Your task to perform on an android device: Do I have any events this weekend? Image 0: 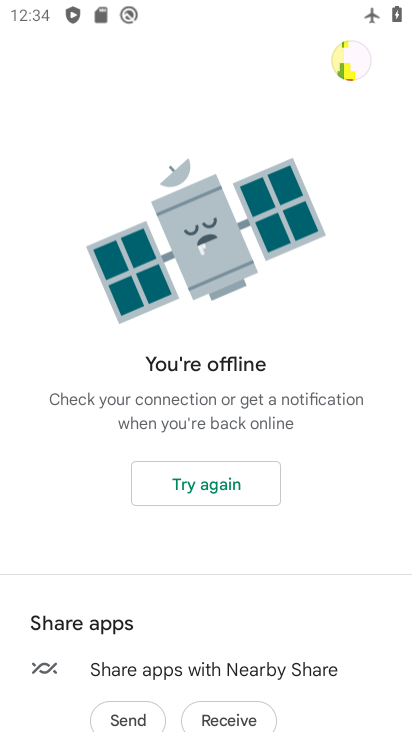
Step 0: press home button
Your task to perform on an android device: Do I have any events this weekend? Image 1: 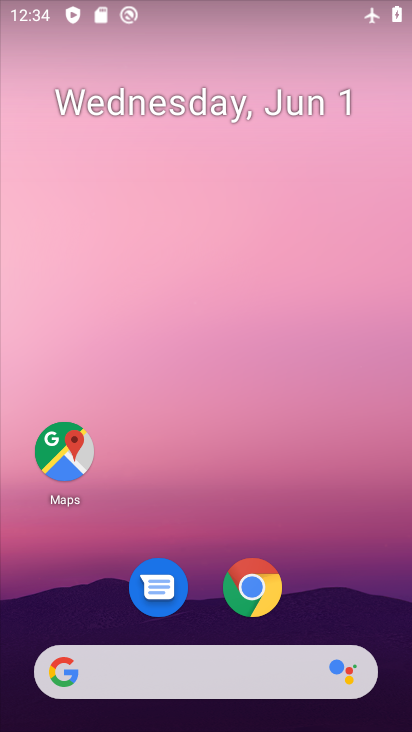
Step 1: drag from (303, 518) to (211, 144)
Your task to perform on an android device: Do I have any events this weekend? Image 2: 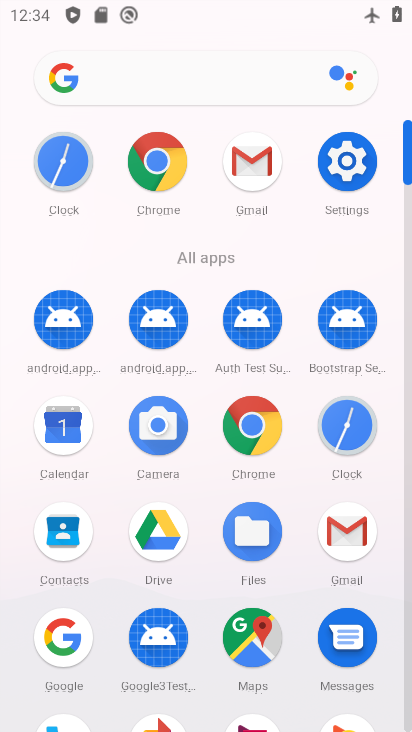
Step 2: click (63, 423)
Your task to perform on an android device: Do I have any events this weekend? Image 3: 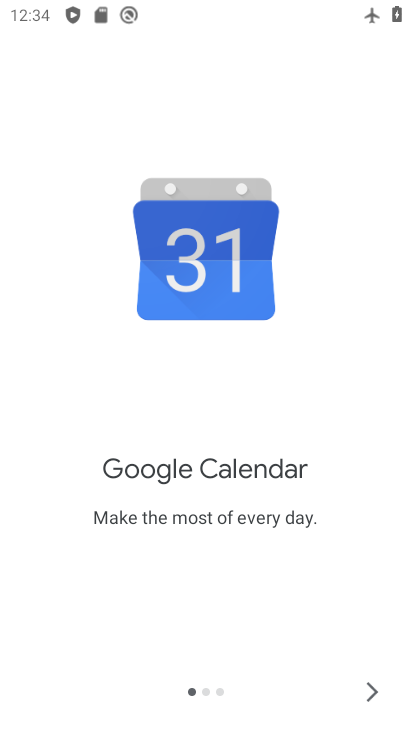
Step 3: click (371, 694)
Your task to perform on an android device: Do I have any events this weekend? Image 4: 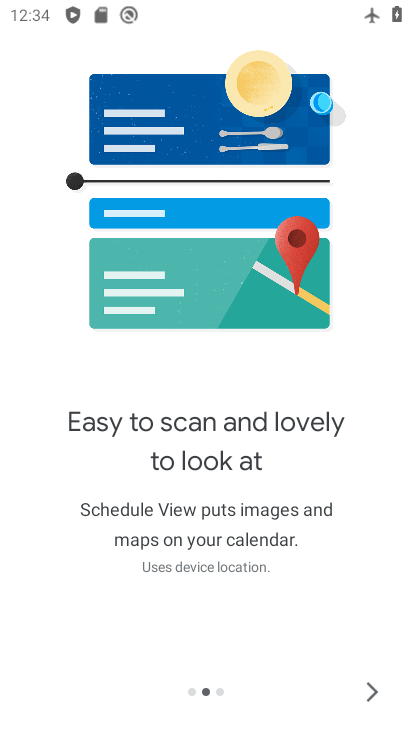
Step 4: click (371, 694)
Your task to perform on an android device: Do I have any events this weekend? Image 5: 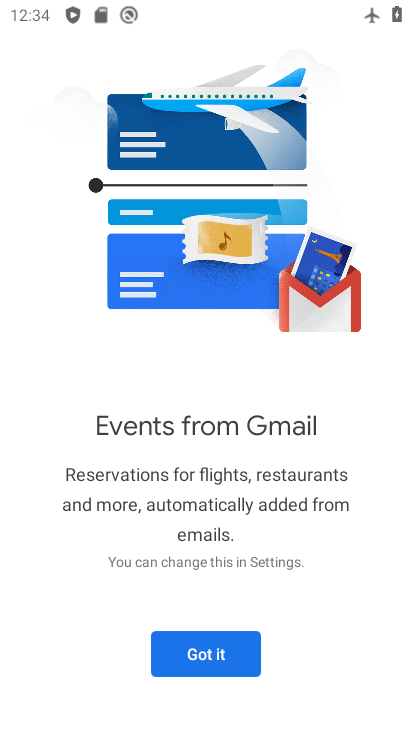
Step 5: click (211, 643)
Your task to perform on an android device: Do I have any events this weekend? Image 6: 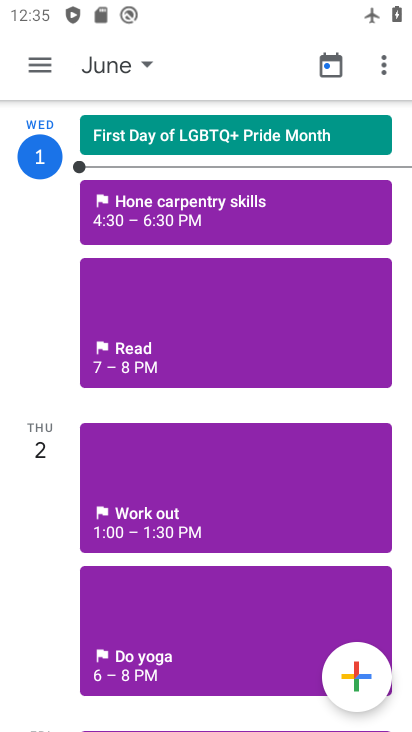
Step 6: click (38, 60)
Your task to perform on an android device: Do I have any events this weekend? Image 7: 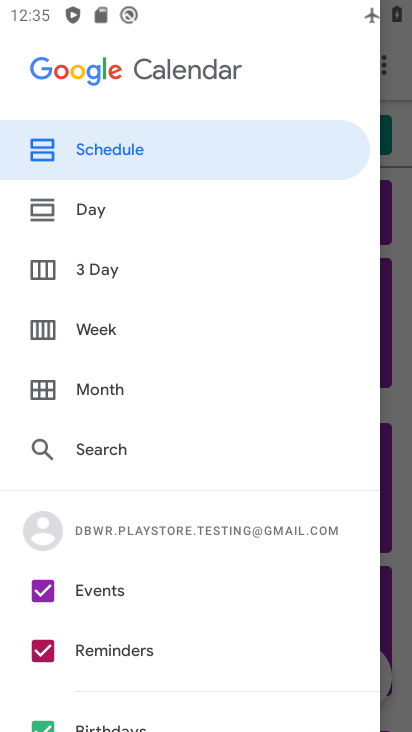
Step 7: click (106, 337)
Your task to perform on an android device: Do I have any events this weekend? Image 8: 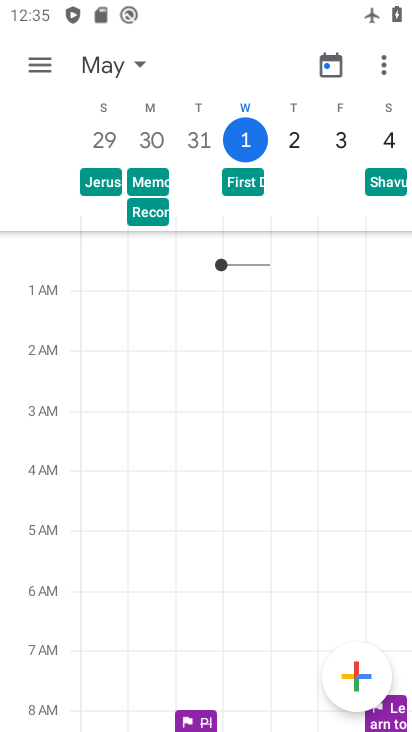
Step 8: task complete